Your task to perform on an android device: uninstall "WhatsApp Messenger" Image 0: 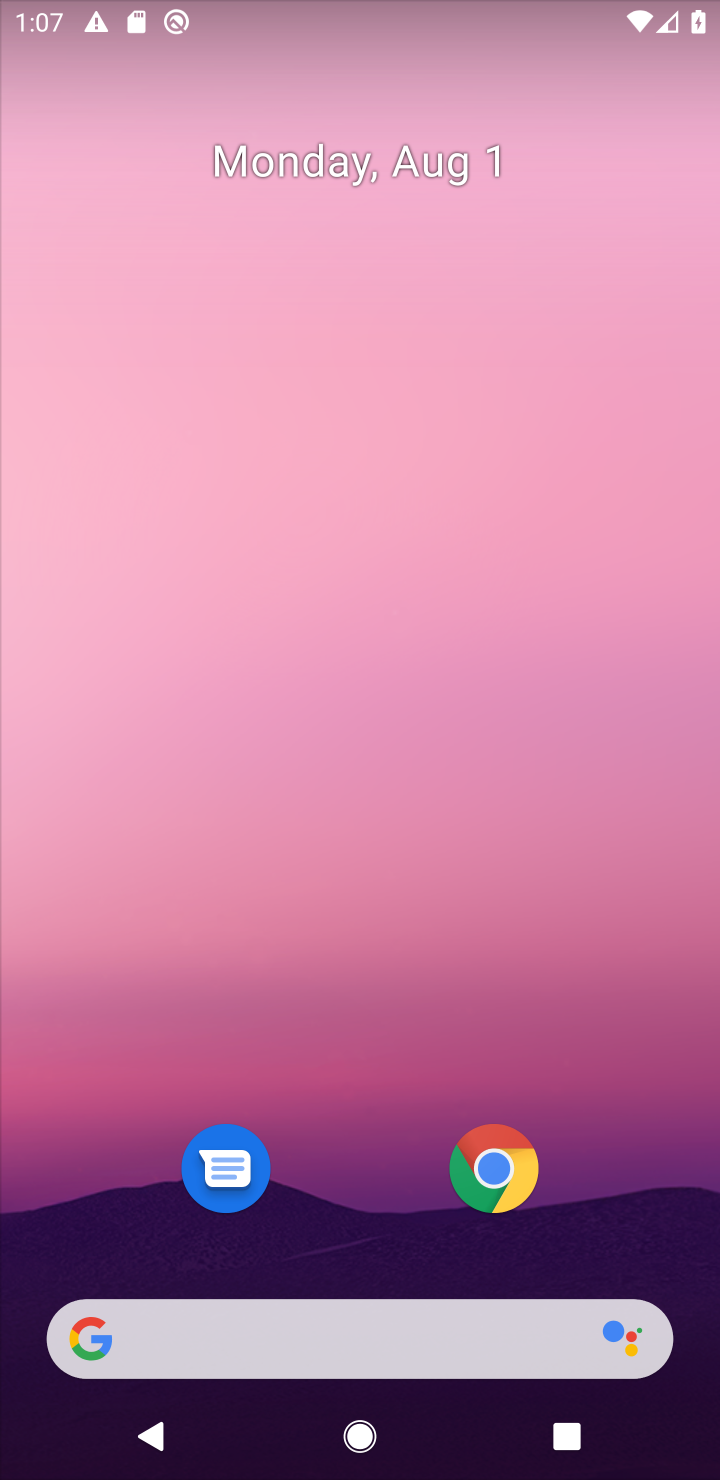
Step 0: drag from (393, 1200) to (452, 37)
Your task to perform on an android device: uninstall "WhatsApp Messenger" Image 1: 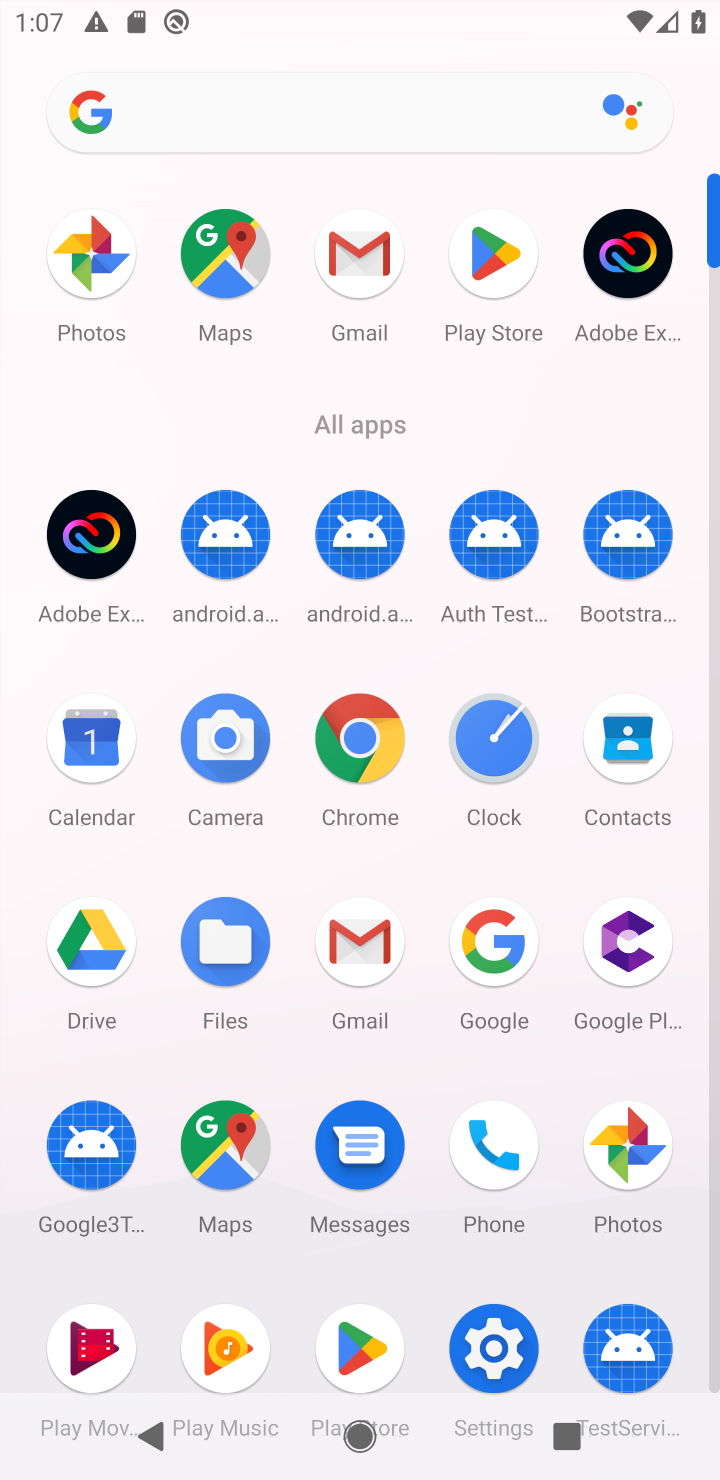
Step 1: click (500, 260)
Your task to perform on an android device: uninstall "WhatsApp Messenger" Image 2: 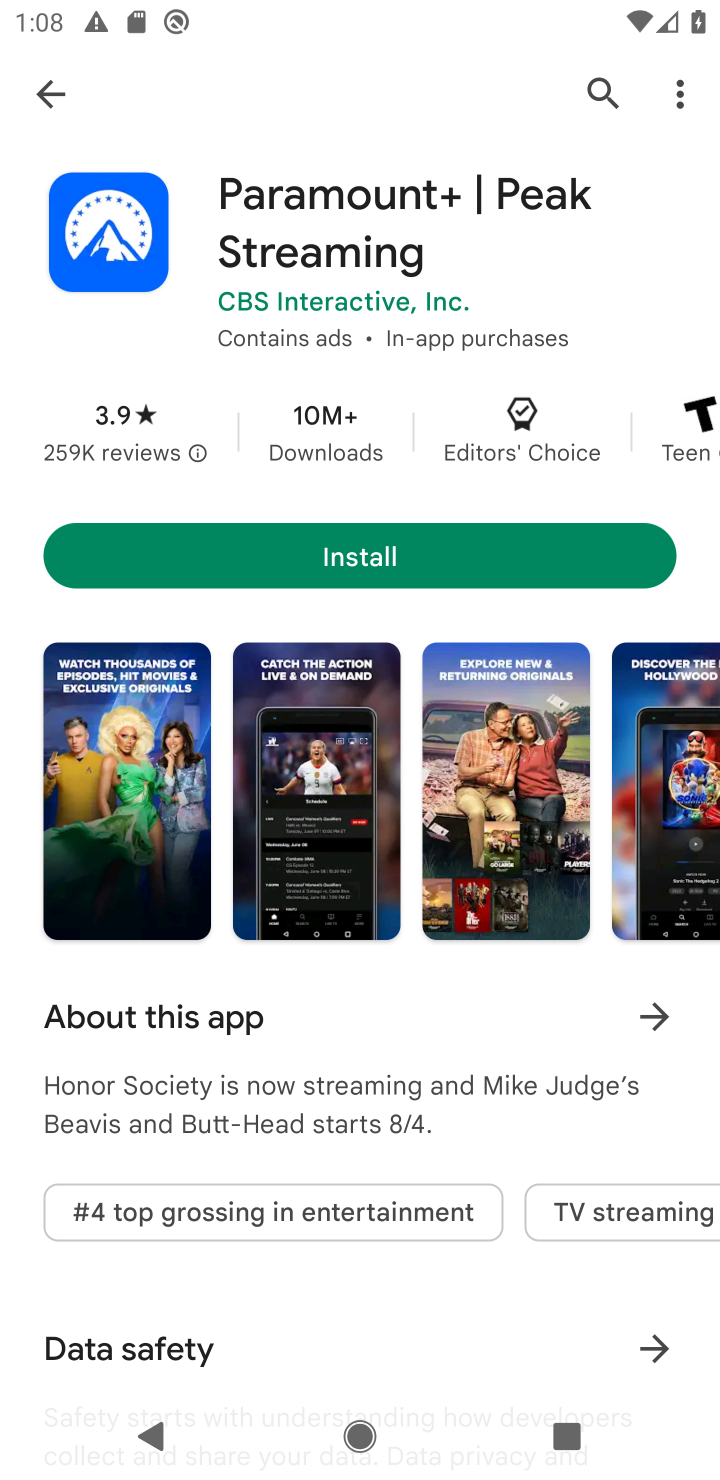
Step 2: click (596, 86)
Your task to perform on an android device: uninstall "WhatsApp Messenger" Image 3: 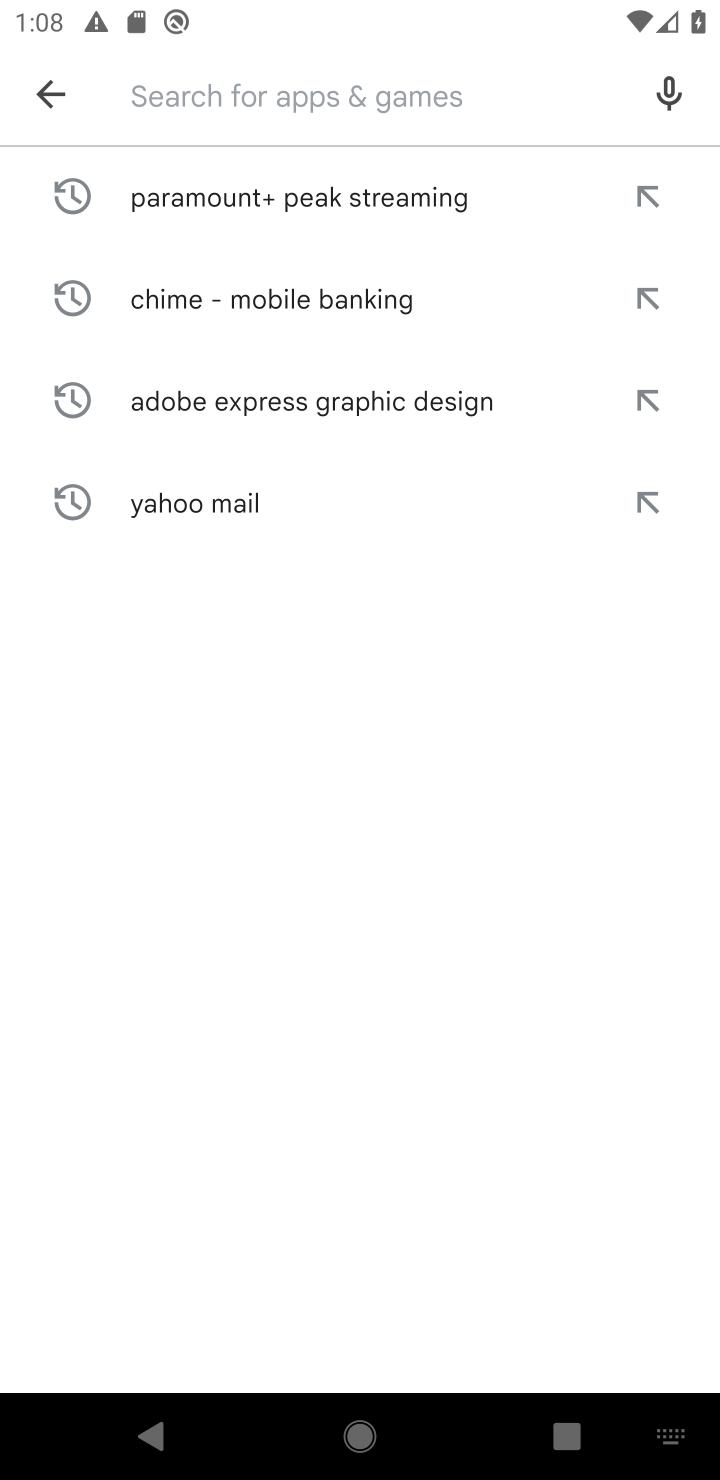
Step 3: type "whatsapp messenger"
Your task to perform on an android device: uninstall "WhatsApp Messenger" Image 4: 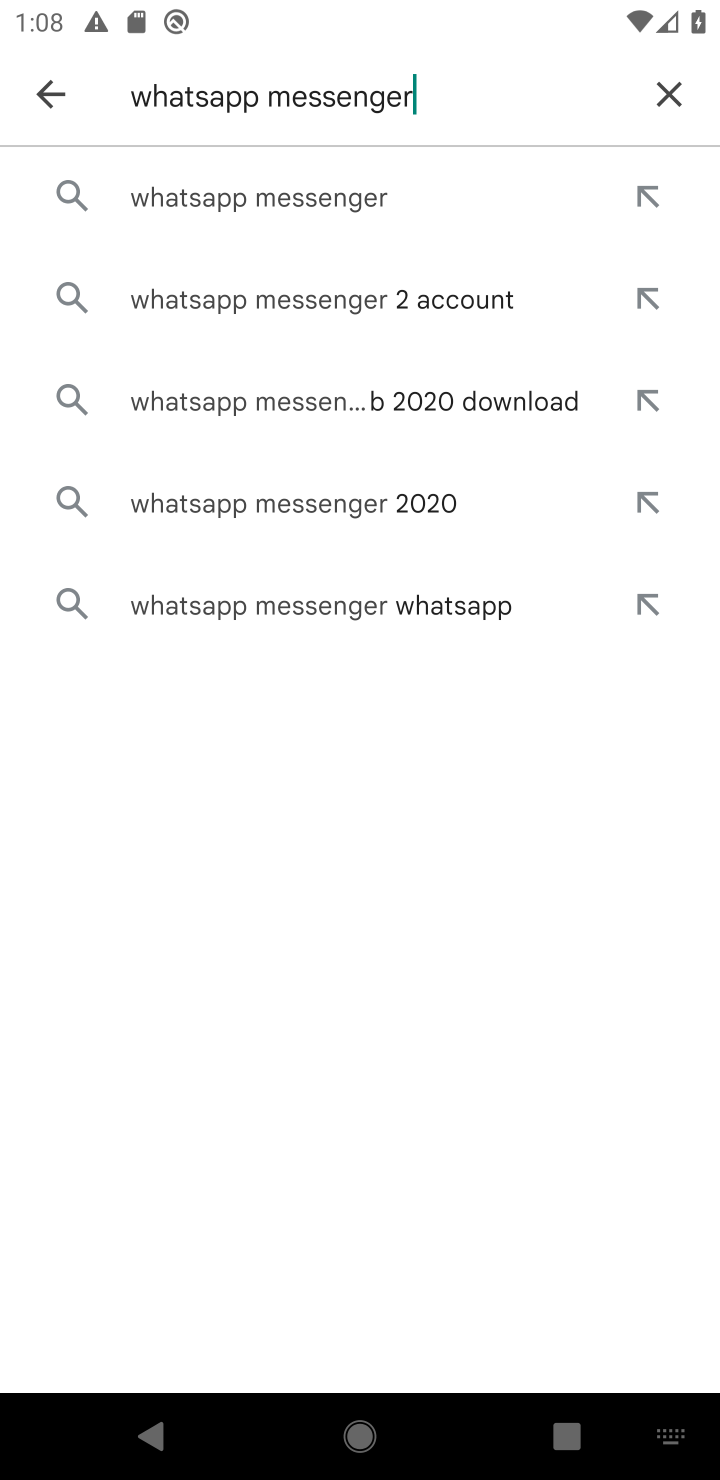
Step 4: click (400, 178)
Your task to perform on an android device: uninstall "WhatsApp Messenger" Image 5: 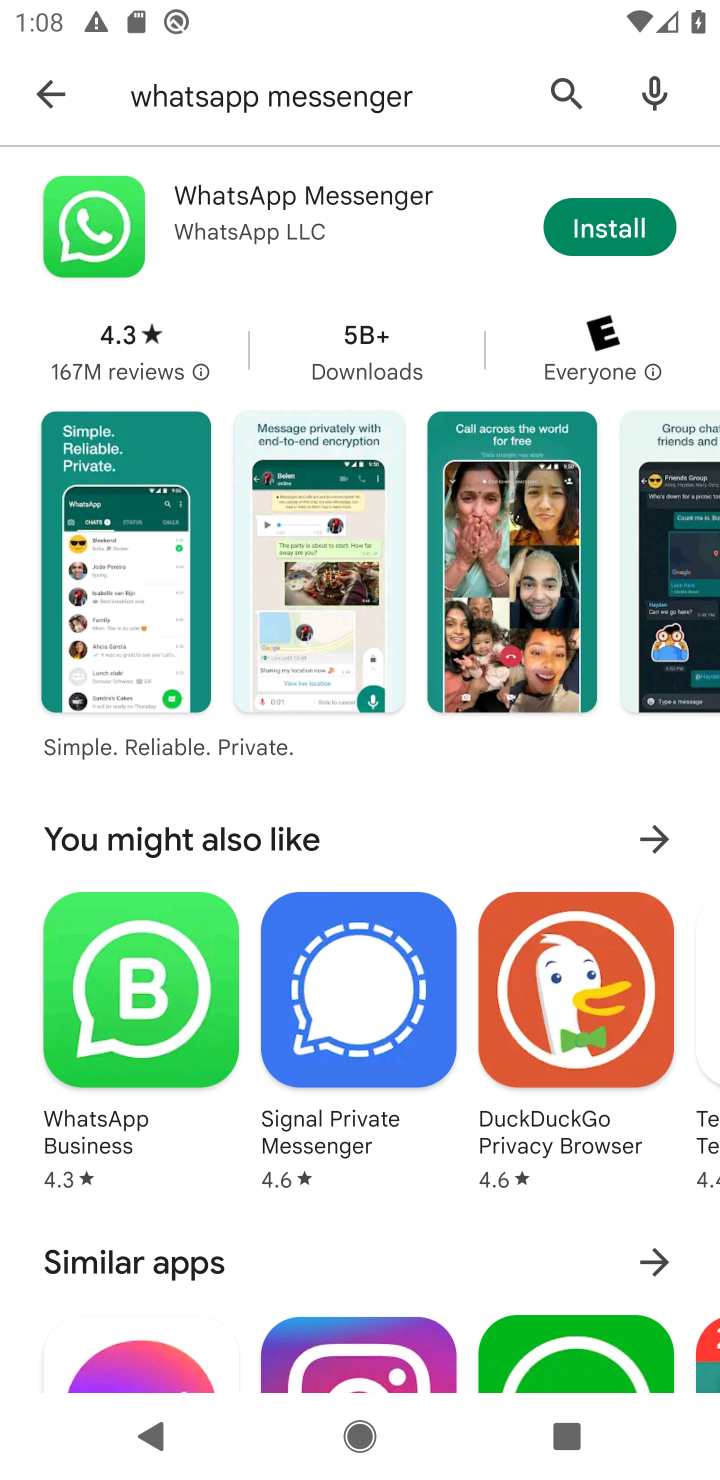
Step 5: click (220, 200)
Your task to perform on an android device: uninstall "WhatsApp Messenger" Image 6: 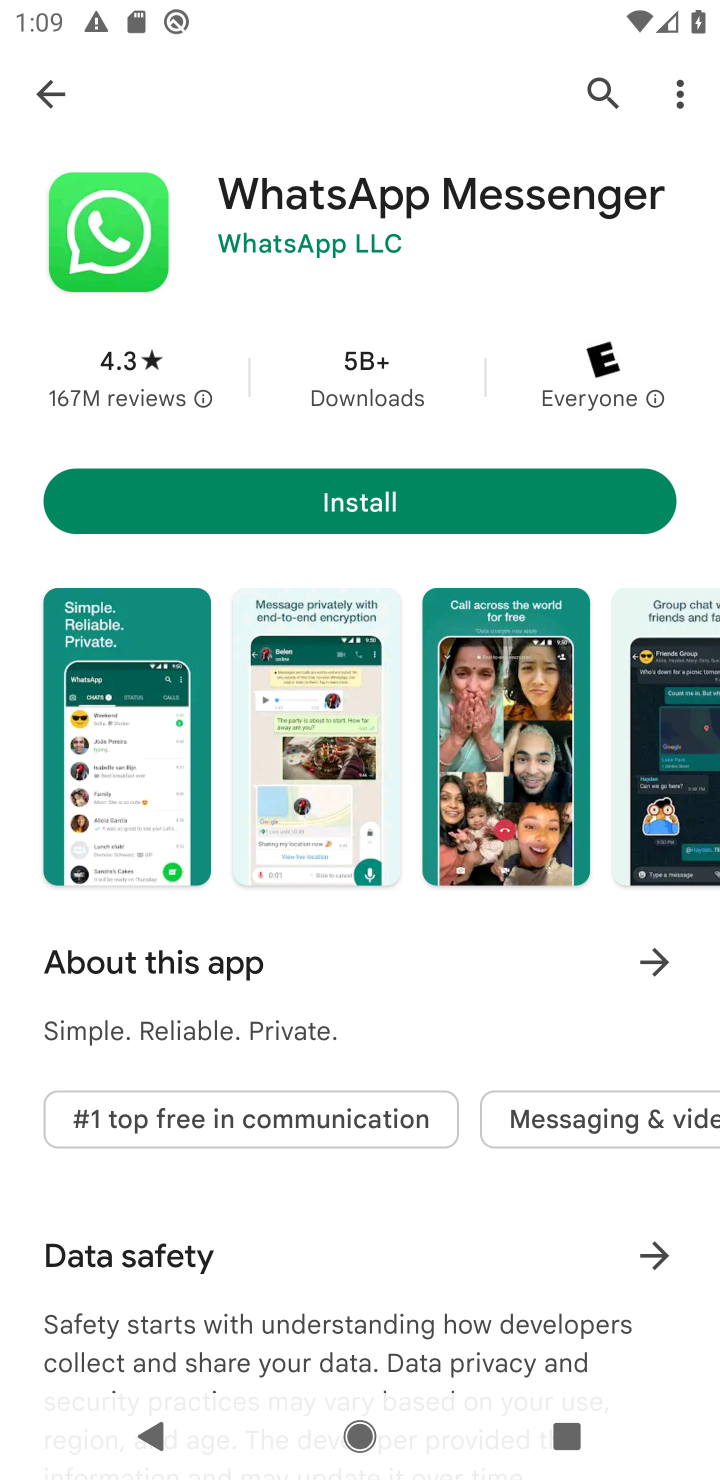
Step 6: task complete